Your task to perform on an android device: Do I have any events this weekend? Image 0: 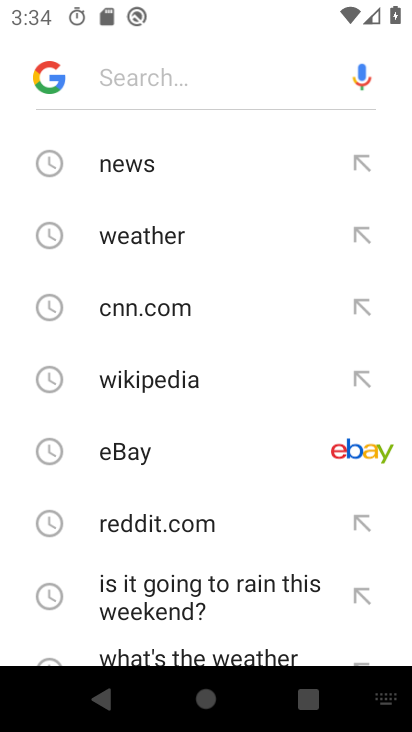
Step 0: press home button
Your task to perform on an android device: Do I have any events this weekend? Image 1: 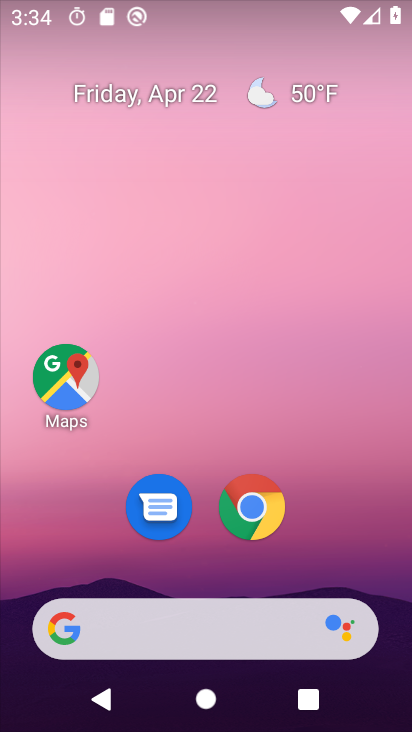
Step 1: drag from (349, 402) to (352, 4)
Your task to perform on an android device: Do I have any events this weekend? Image 2: 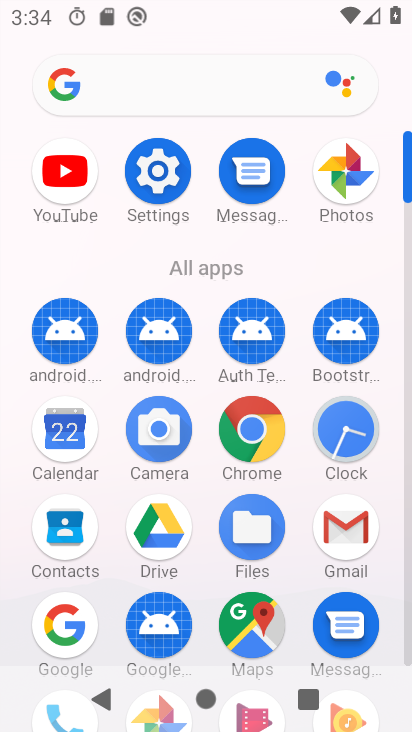
Step 2: click (55, 442)
Your task to perform on an android device: Do I have any events this weekend? Image 3: 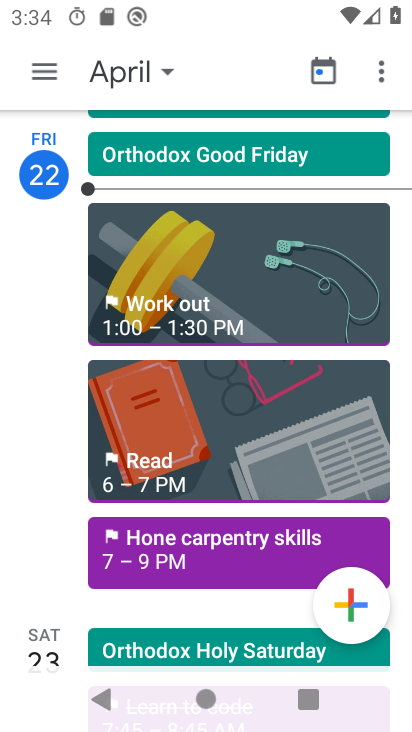
Step 3: click (154, 67)
Your task to perform on an android device: Do I have any events this weekend? Image 4: 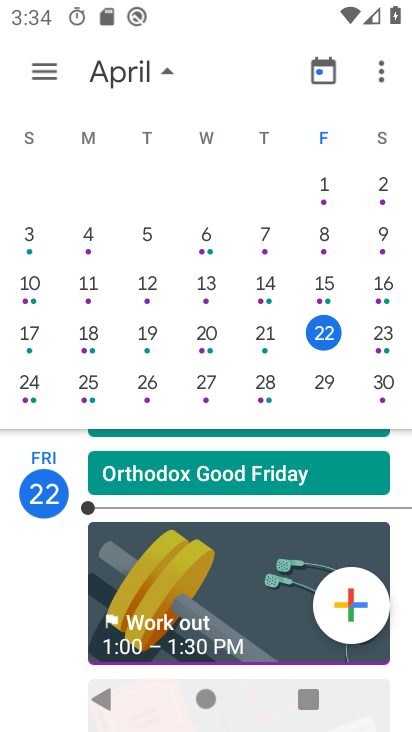
Step 4: click (375, 339)
Your task to perform on an android device: Do I have any events this weekend? Image 5: 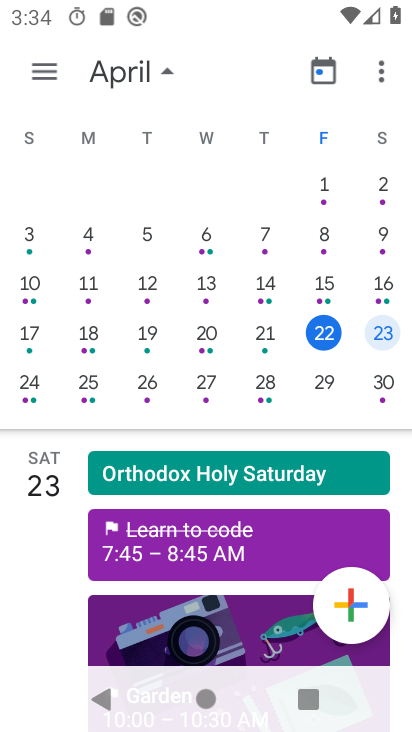
Step 5: task complete